Your task to perform on an android device: What is the recent news? Image 0: 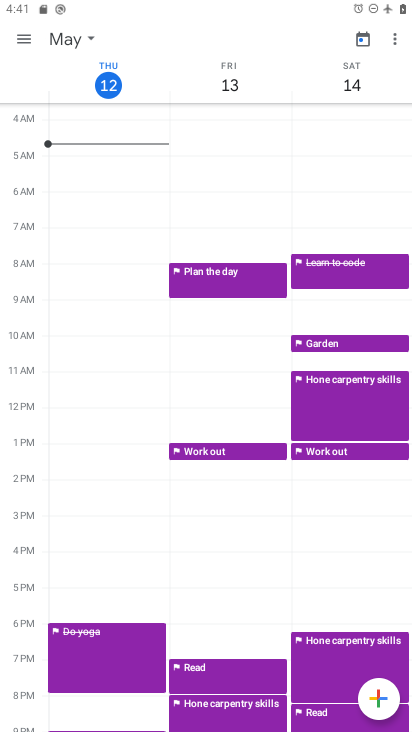
Step 0: press home button
Your task to perform on an android device: What is the recent news? Image 1: 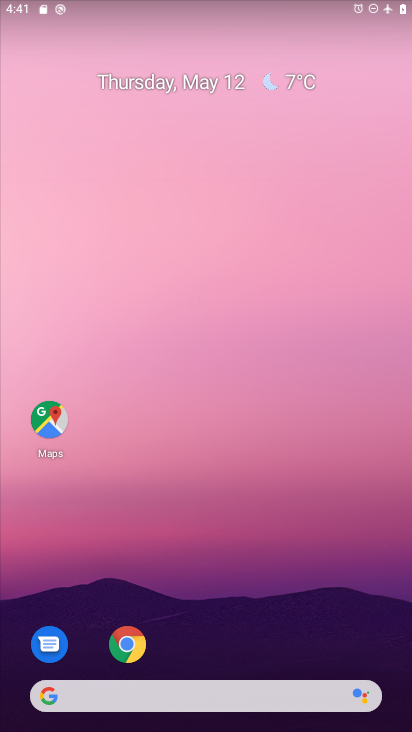
Step 1: click (188, 702)
Your task to perform on an android device: What is the recent news? Image 2: 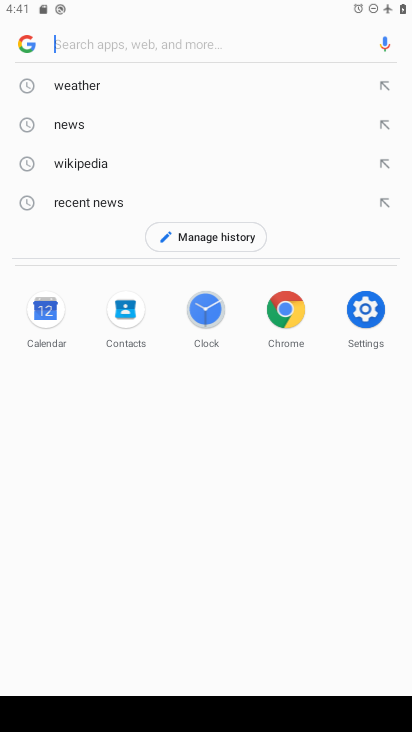
Step 2: click (99, 203)
Your task to perform on an android device: What is the recent news? Image 3: 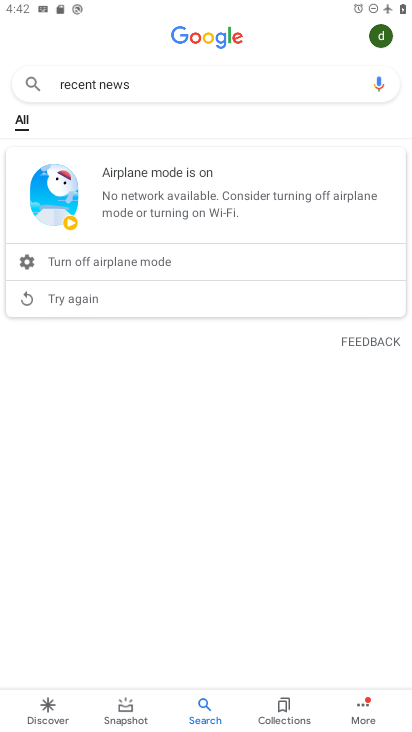
Step 3: task complete